Your task to perform on an android device: When is my next meeting? Image 0: 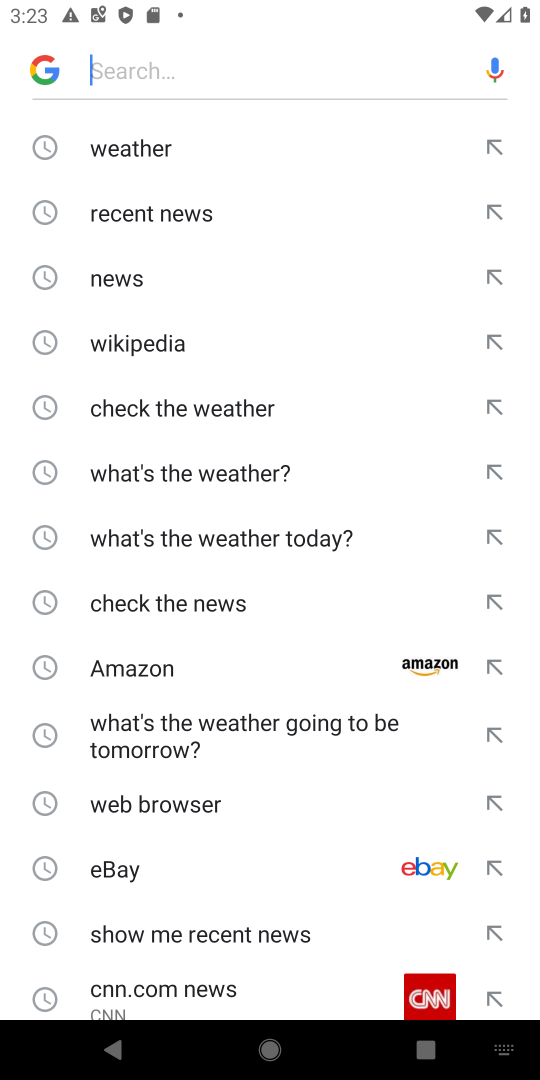
Step 0: press back button
Your task to perform on an android device: When is my next meeting? Image 1: 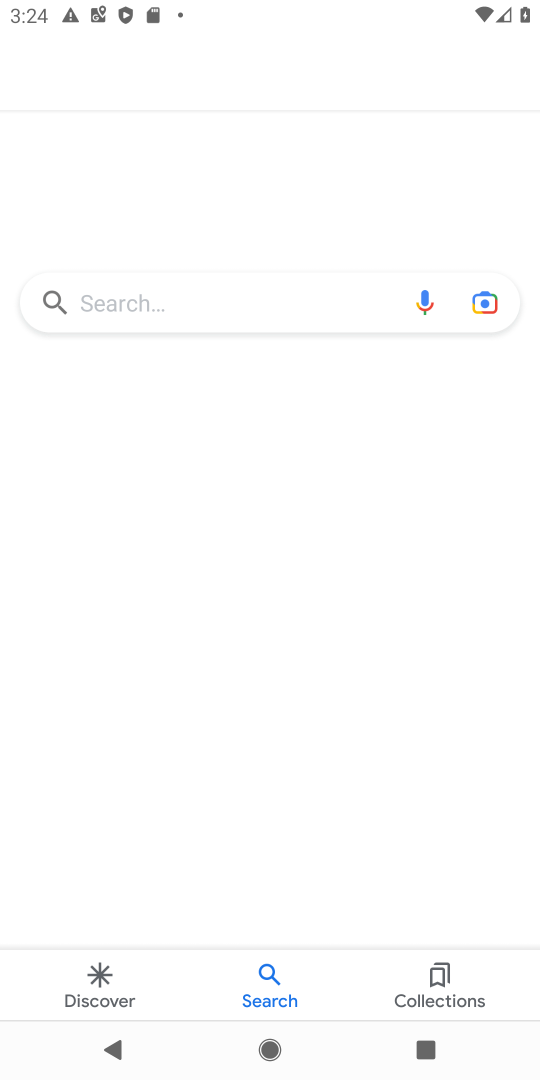
Step 1: press back button
Your task to perform on an android device: When is my next meeting? Image 2: 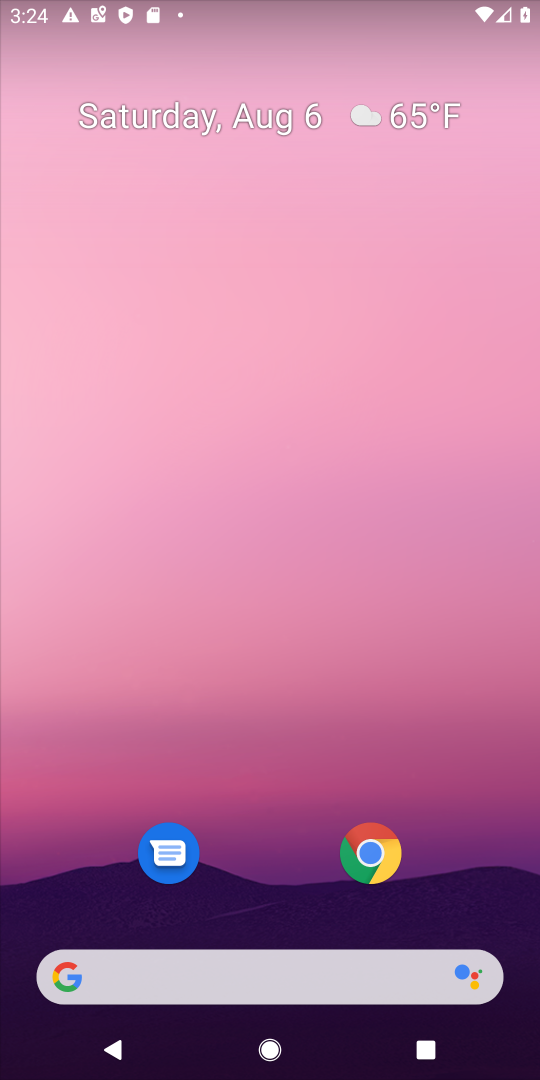
Step 2: drag from (291, 764) to (411, 27)
Your task to perform on an android device: When is my next meeting? Image 3: 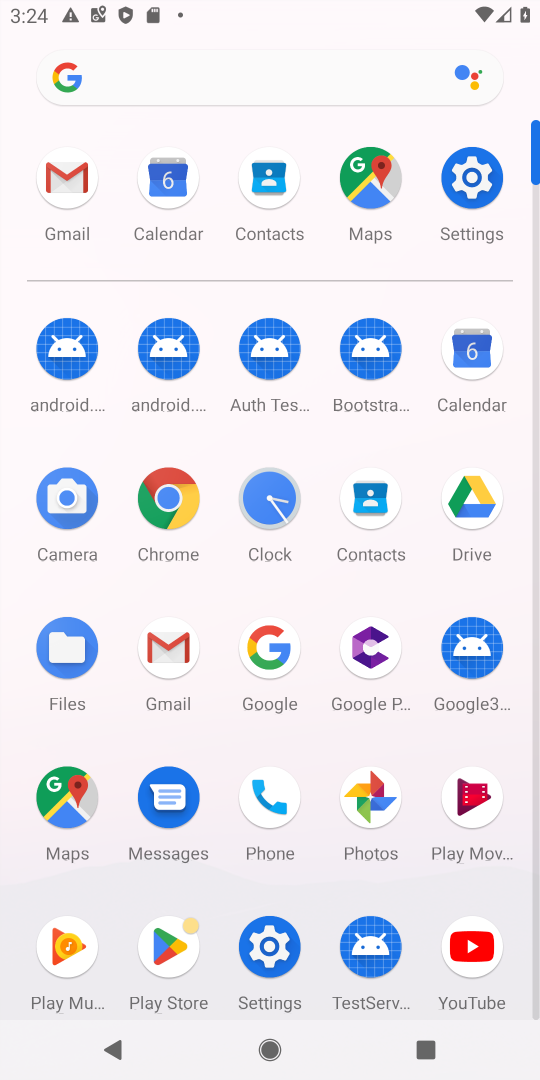
Step 3: click (456, 378)
Your task to perform on an android device: When is my next meeting? Image 4: 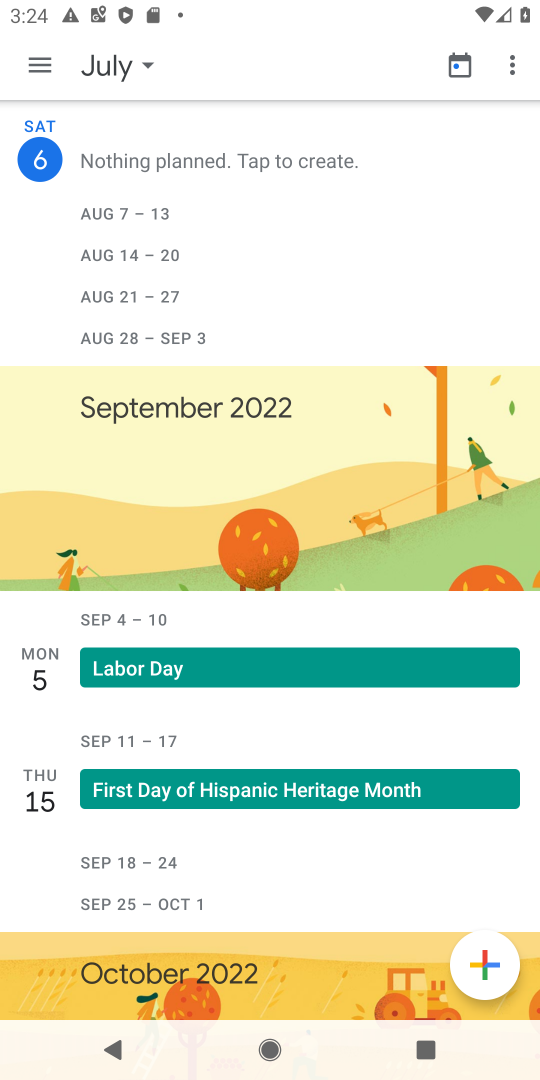
Step 4: task complete